Your task to perform on an android device: turn off location Image 0: 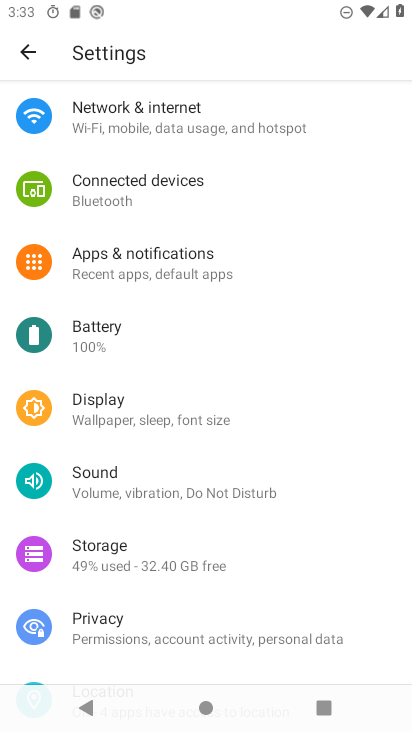
Step 0: drag from (188, 581) to (195, 238)
Your task to perform on an android device: turn off location Image 1: 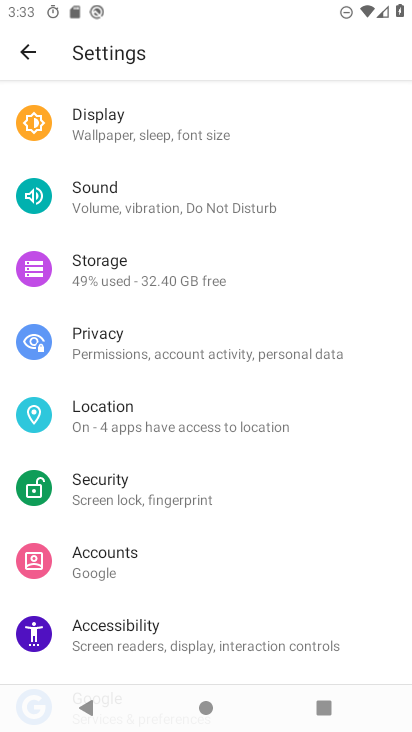
Step 1: click (137, 409)
Your task to perform on an android device: turn off location Image 2: 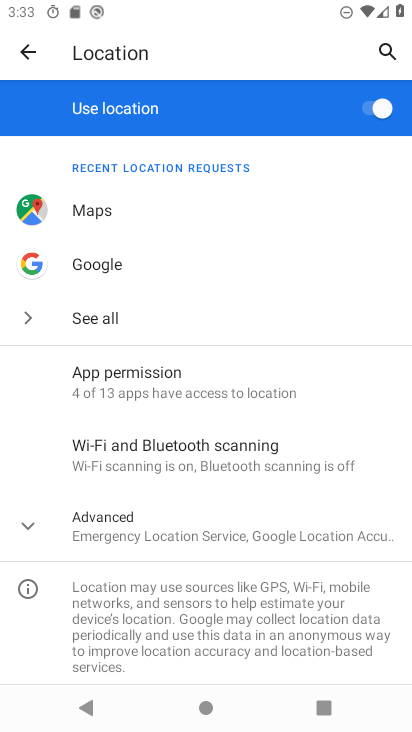
Step 2: click (359, 99)
Your task to perform on an android device: turn off location Image 3: 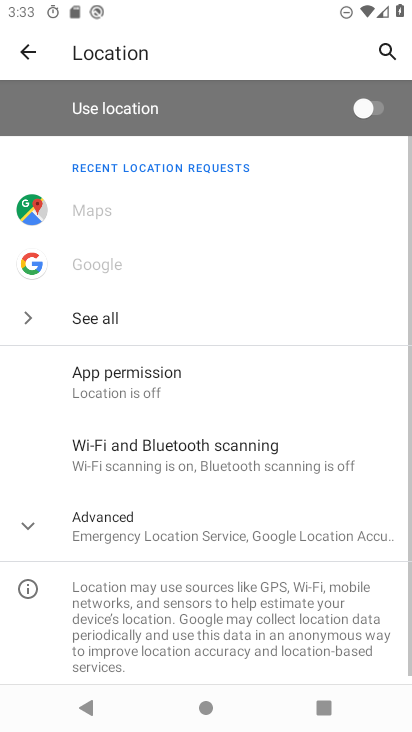
Step 3: task complete